Your task to perform on an android device: change notifications settings Image 0: 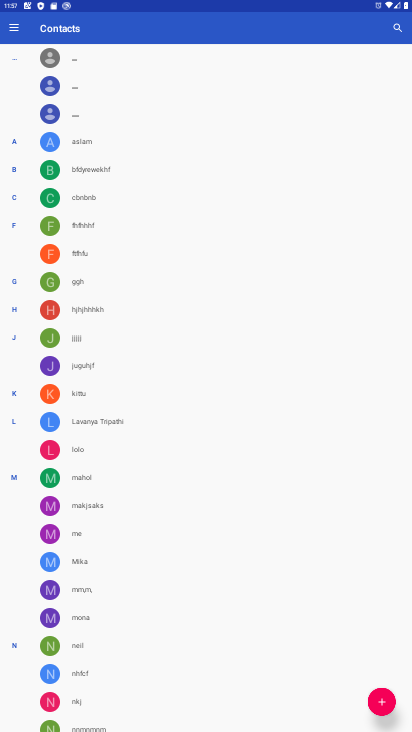
Step 0: press home button
Your task to perform on an android device: change notifications settings Image 1: 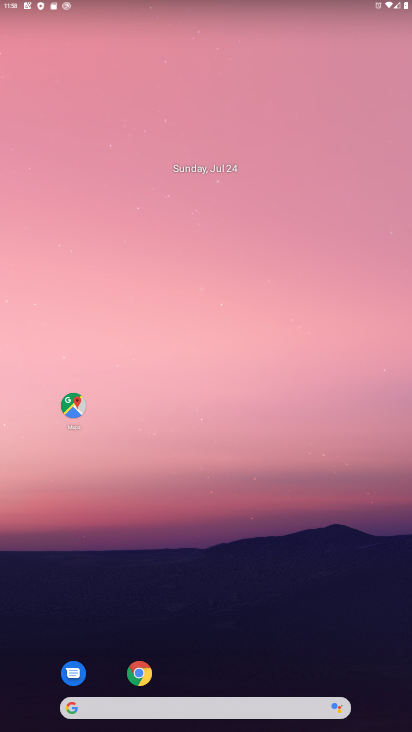
Step 1: drag from (223, 24) to (272, 18)
Your task to perform on an android device: change notifications settings Image 2: 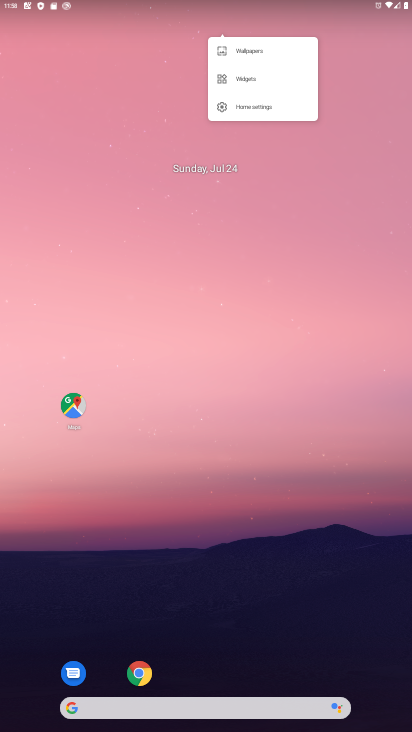
Step 2: click (265, 669)
Your task to perform on an android device: change notifications settings Image 3: 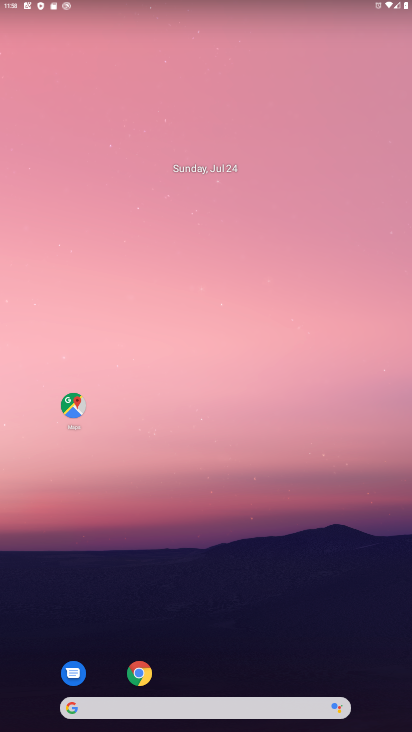
Step 3: drag from (262, 624) to (231, 113)
Your task to perform on an android device: change notifications settings Image 4: 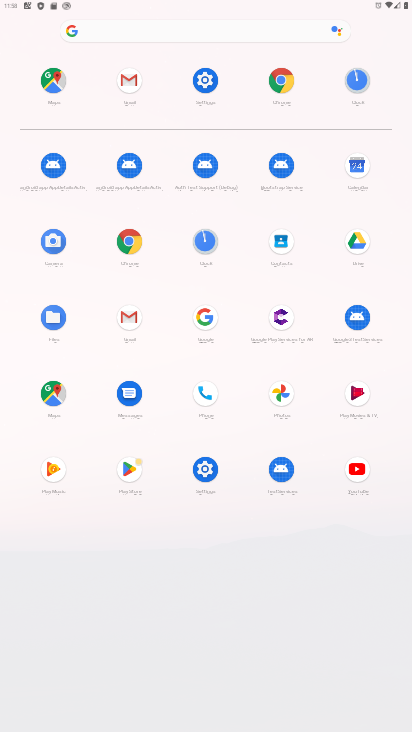
Step 4: click (202, 83)
Your task to perform on an android device: change notifications settings Image 5: 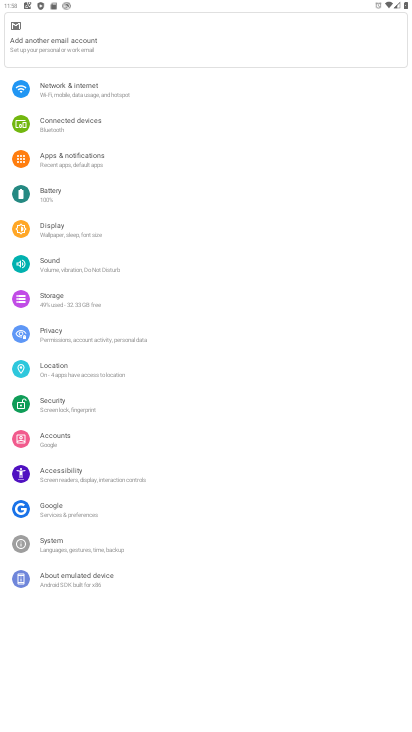
Step 5: click (98, 166)
Your task to perform on an android device: change notifications settings Image 6: 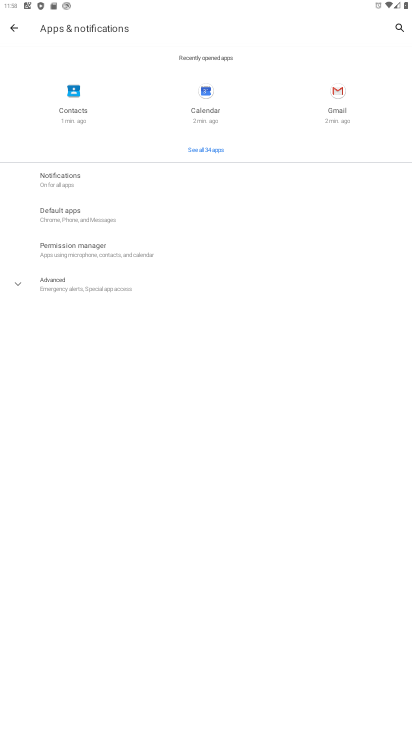
Step 6: task complete